Your task to perform on an android device: turn off smart reply in the gmail app Image 0: 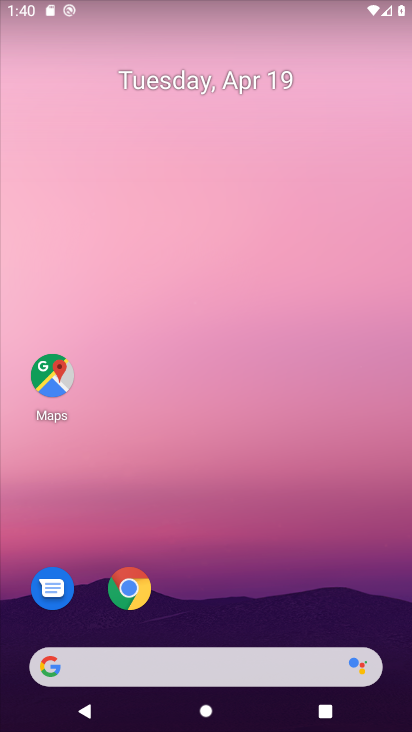
Step 0: drag from (203, 531) to (255, 17)
Your task to perform on an android device: turn off smart reply in the gmail app Image 1: 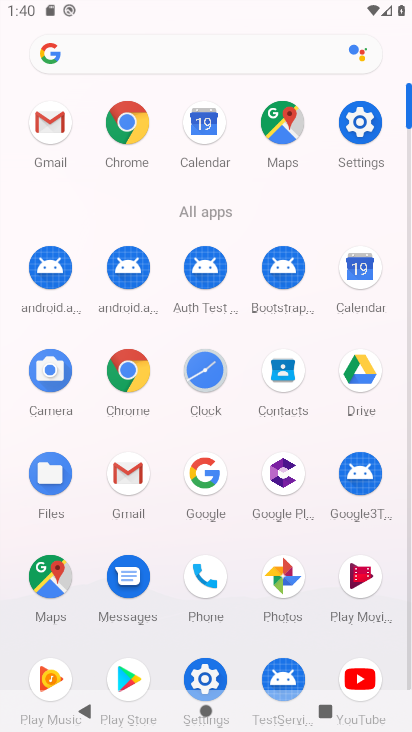
Step 1: click (40, 129)
Your task to perform on an android device: turn off smart reply in the gmail app Image 2: 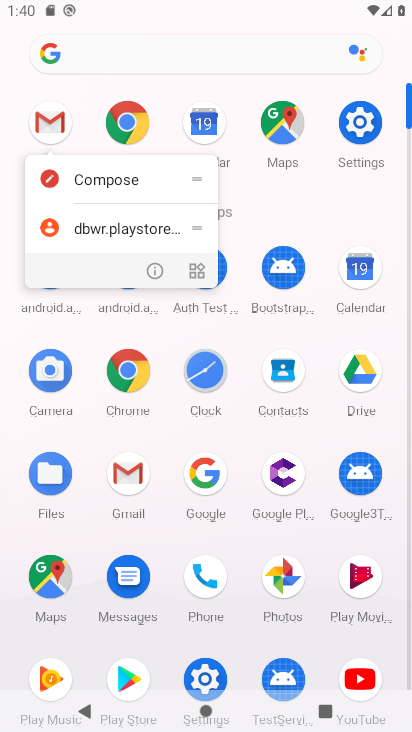
Step 2: click (54, 135)
Your task to perform on an android device: turn off smart reply in the gmail app Image 3: 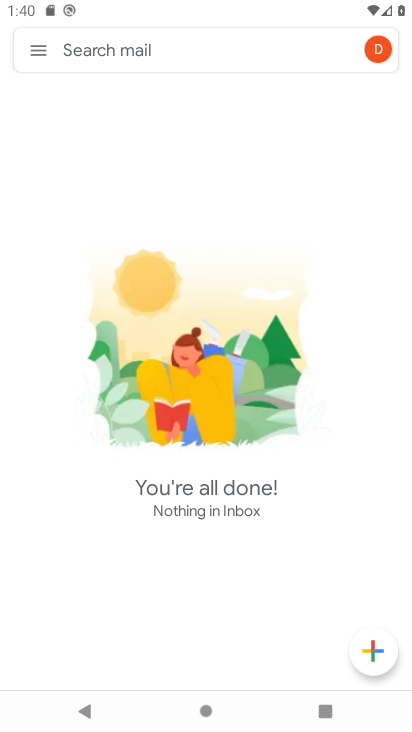
Step 3: click (34, 51)
Your task to perform on an android device: turn off smart reply in the gmail app Image 4: 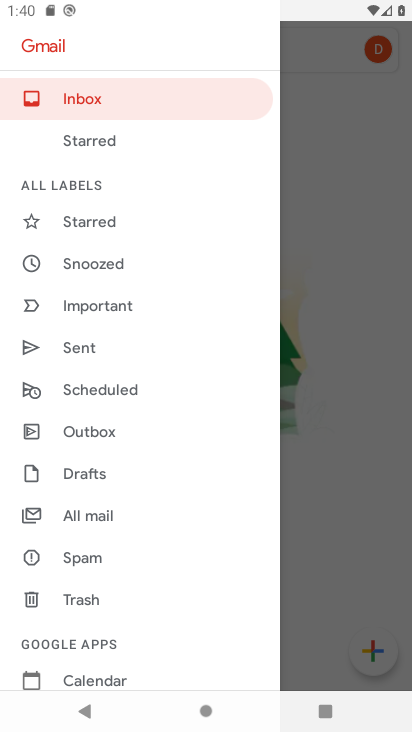
Step 4: drag from (127, 206) to (127, 94)
Your task to perform on an android device: turn off smart reply in the gmail app Image 5: 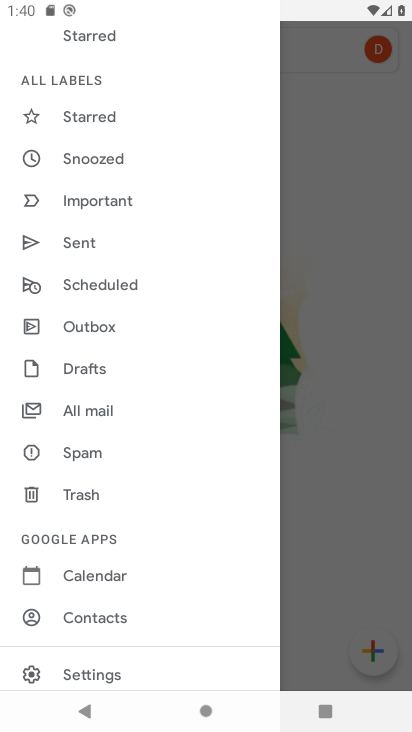
Step 5: click (111, 674)
Your task to perform on an android device: turn off smart reply in the gmail app Image 6: 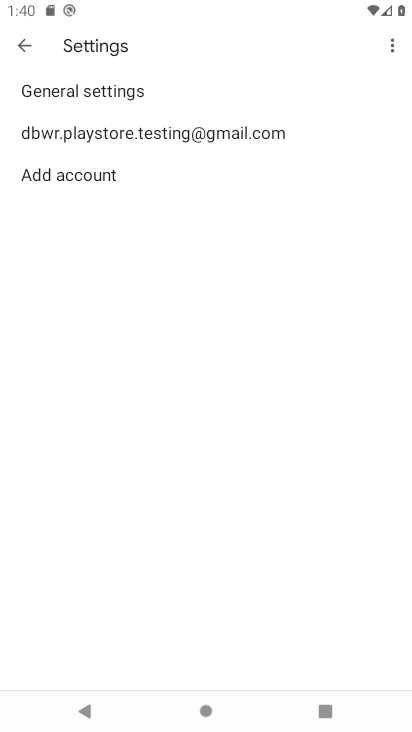
Step 6: click (119, 133)
Your task to perform on an android device: turn off smart reply in the gmail app Image 7: 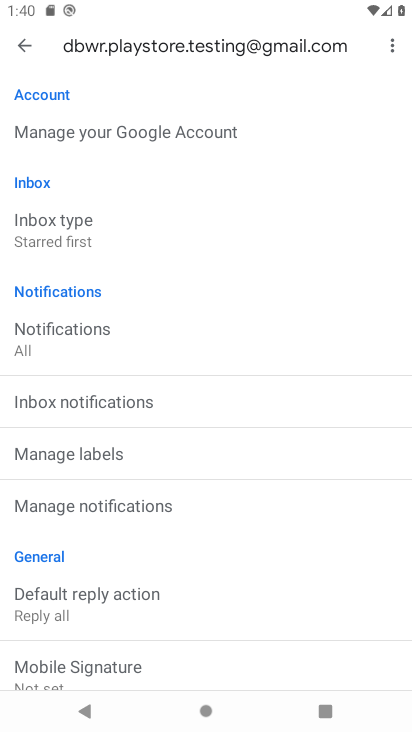
Step 7: drag from (169, 617) to (175, 268)
Your task to perform on an android device: turn off smart reply in the gmail app Image 8: 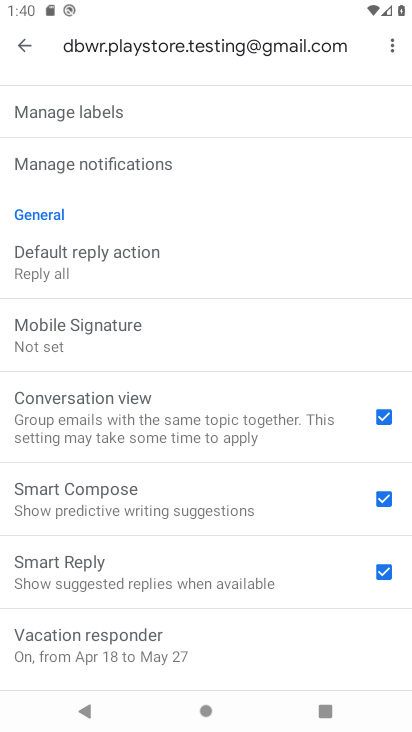
Step 8: click (178, 577)
Your task to perform on an android device: turn off smart reply in the gmail app Image 9: 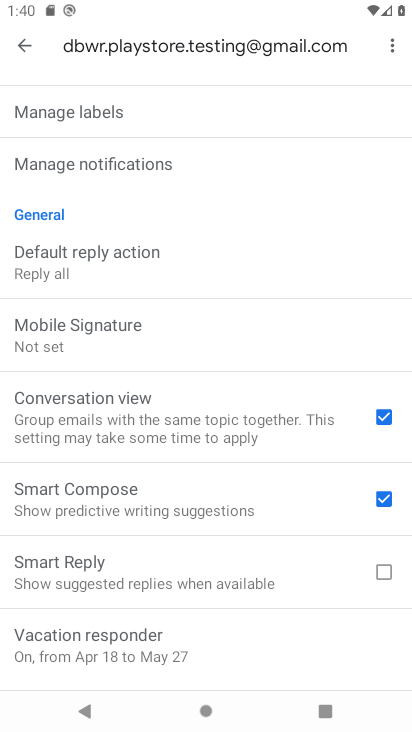
Step 9: task complete